Your task to perform on an android device: Open sound settings Image 0: 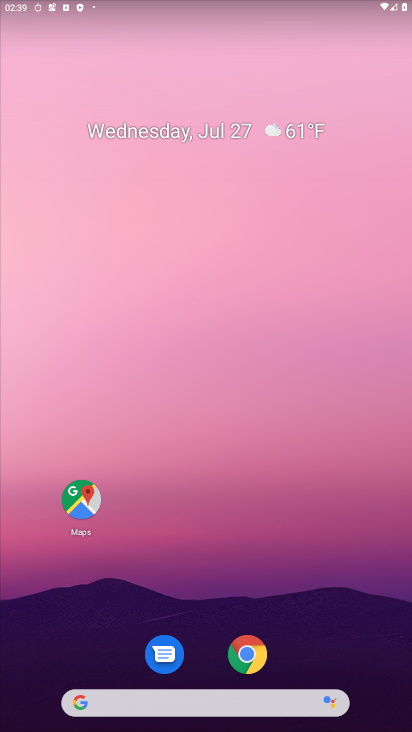
Step 0: drag from (279, 700) to (366, 69)
Your task to perform on an android device: Open sound settings Image 1: 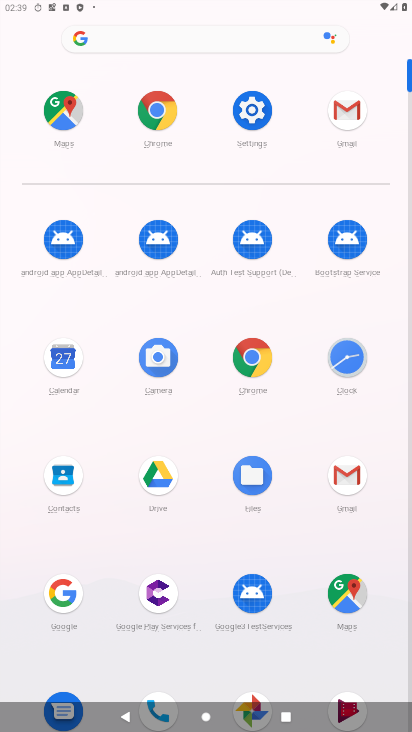
Step 1: click (243, 99)
Your task to perform on an android device: Open sound settings Image 2: 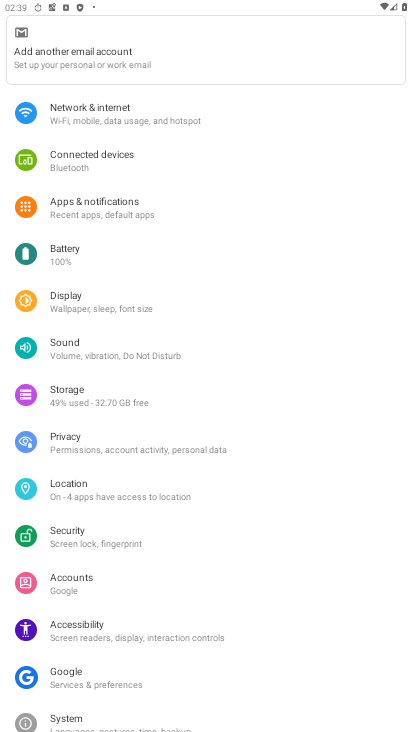
Step 2: click (110, 352)
Your task to perform on an android device: Open sound settings Image 3: 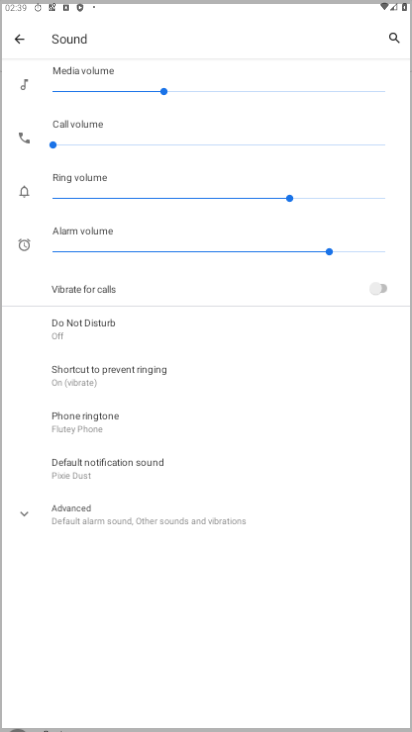
Step 3: task complete